Your task to perform on an android device: find snoozed emails in the gmail app Image 0: 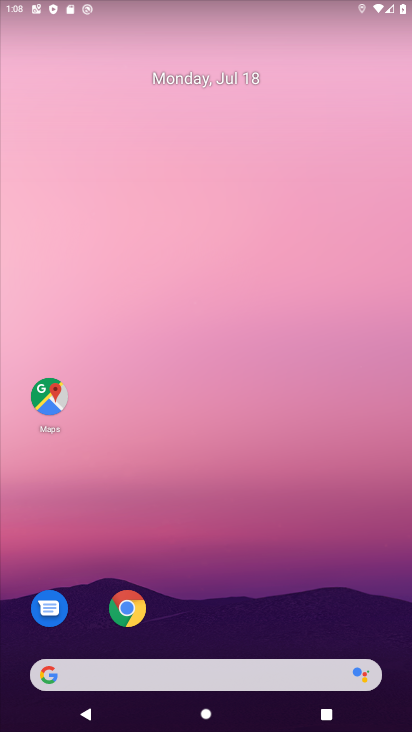
Step 0: drag from (302, 630) to (252, 198)
Your task to perform on an android device: find snoozed emails in the gmail app Image 1: 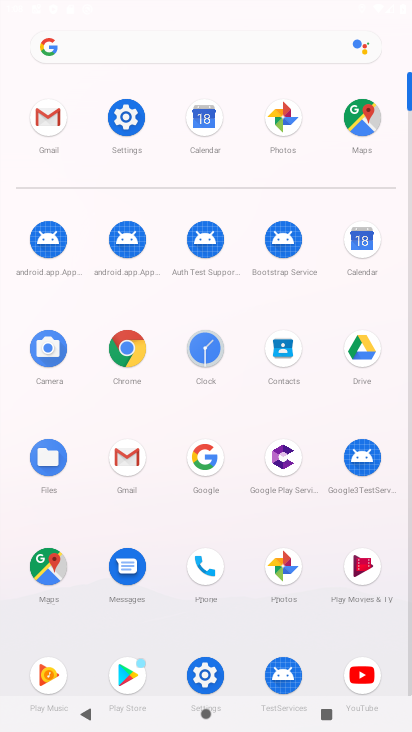
Step 1: click (50, 124)
Your task to perform on an android device: find snoozed emails in the gmail app Image 2: 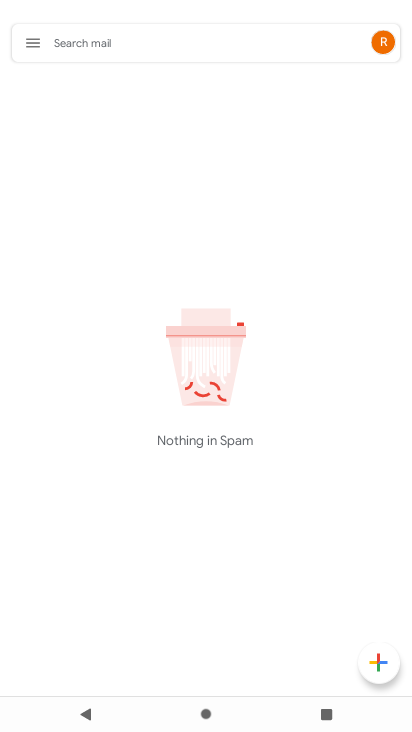
Step 2: click (33, 48)
Your task to perform on an android device: find snoozed emails in the gmail app Image 3: 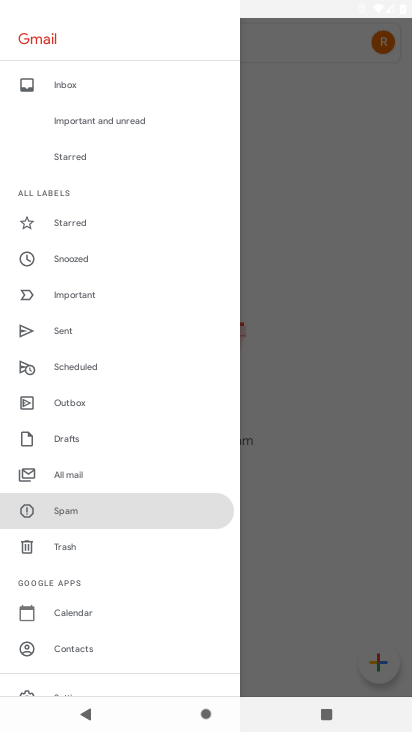
Step 3: click (99, 253)
Your task to perform on an android device: find snoozed emails in the gmail app Image 4: 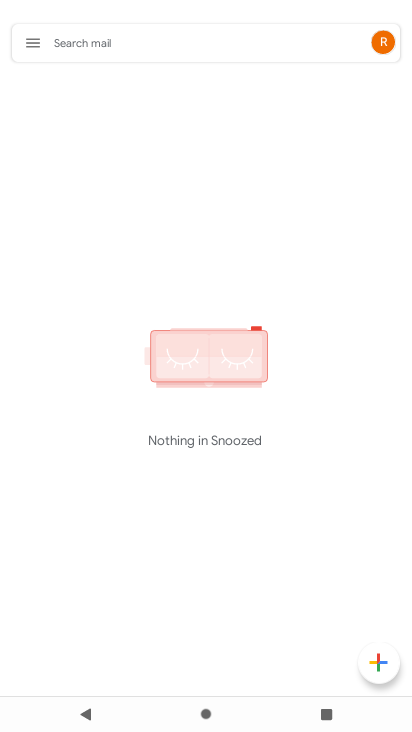
Step 4: task complete